Your task to perform on an android device: change the clock display to digital Image 0: 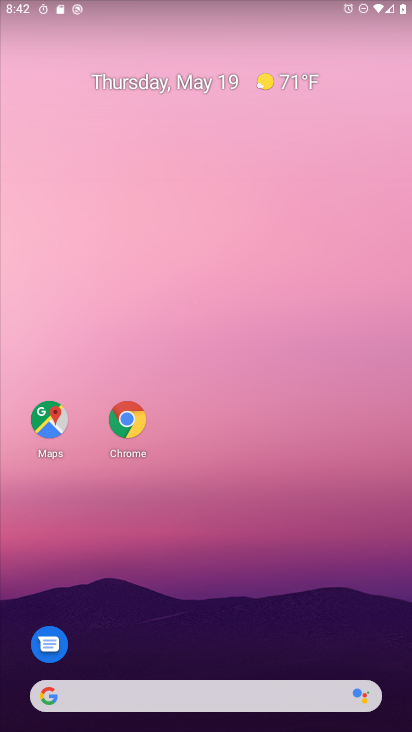
Step 0: drag from (196, 559) to (229, 231)
Your task to perform on an android device: change the clock display to digital Image 1: 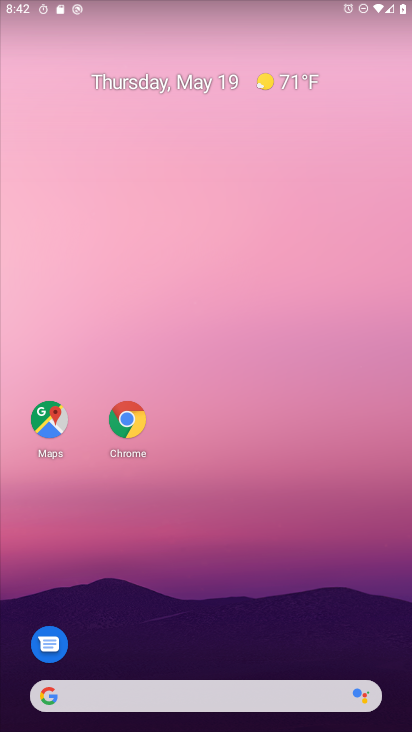
Step 1: drag from (235, 691) to (276, 218)
Your task to perform on an android device: change the clock display to digital Image 2: 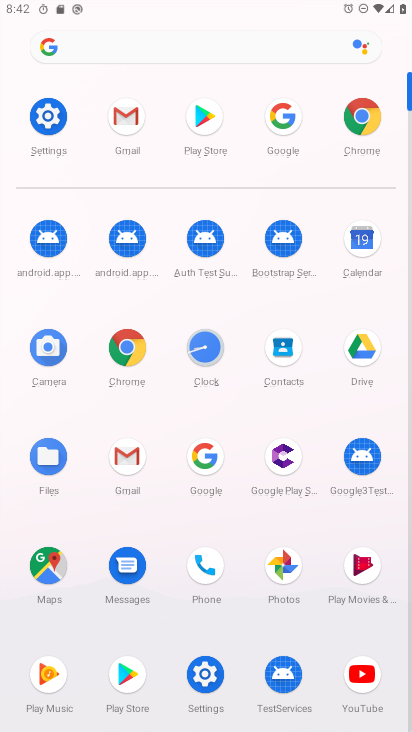
Step 2: click (187, 336)
Your task to perform on an android device: change the clock display to digital Image 3: 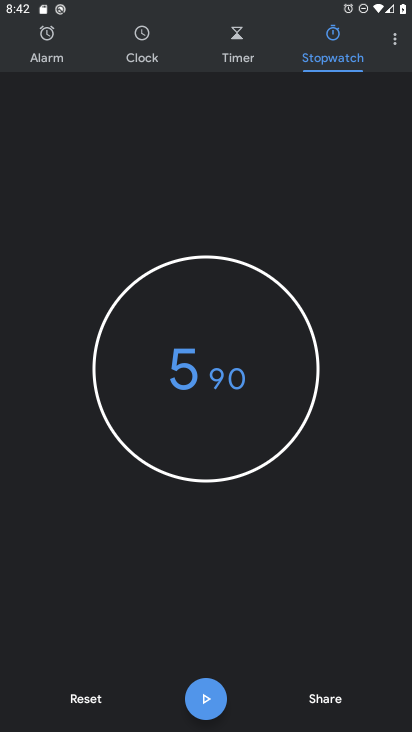
Step 3: click (395, 38)
Your task to perform on an android device: change the clock display to digital Image 4: 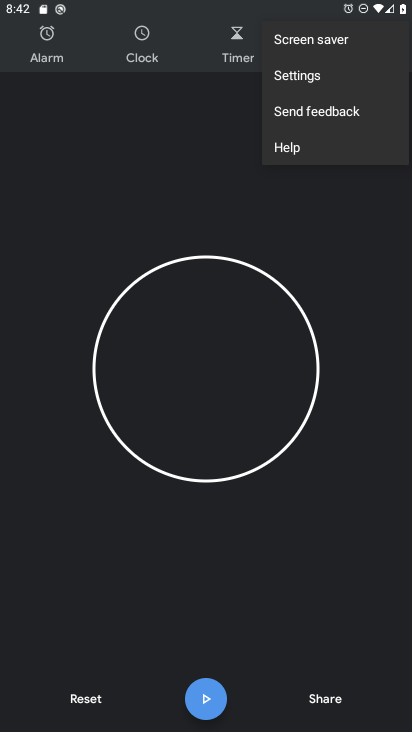
Step 4: click (314, 73)
Your task to perform on an android device: change the clock display to digital Image 5: 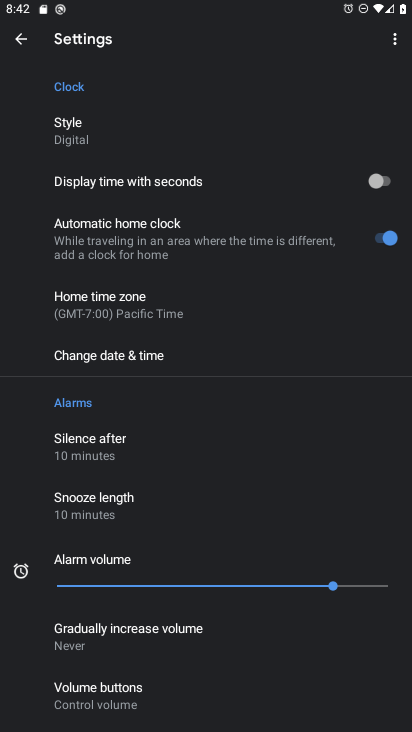
Step 5: click (92, 137)
Your task to perform on an android device: change the clock display to digital Image 6: 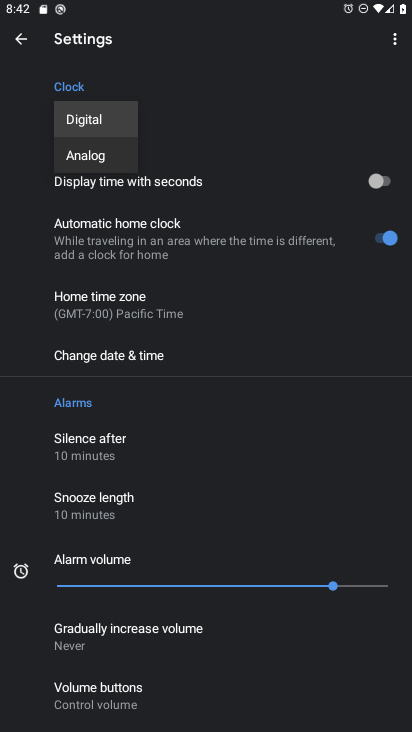
Step 6: task complete